Your task to perform on an android device: check data usage Image 0: 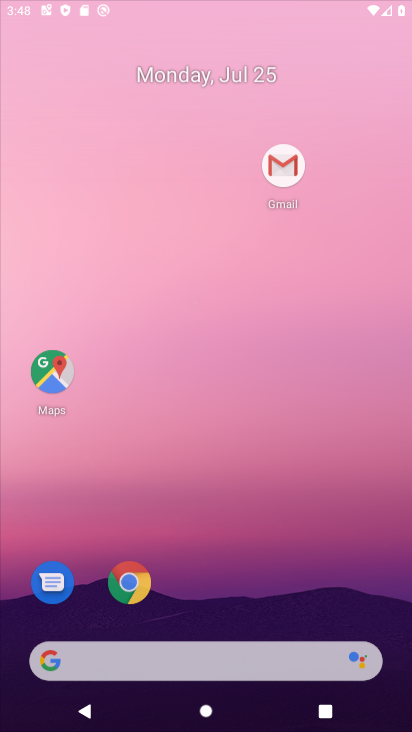
Step 0: press home button
Your task to perform on an android device: check data usage Image 1: 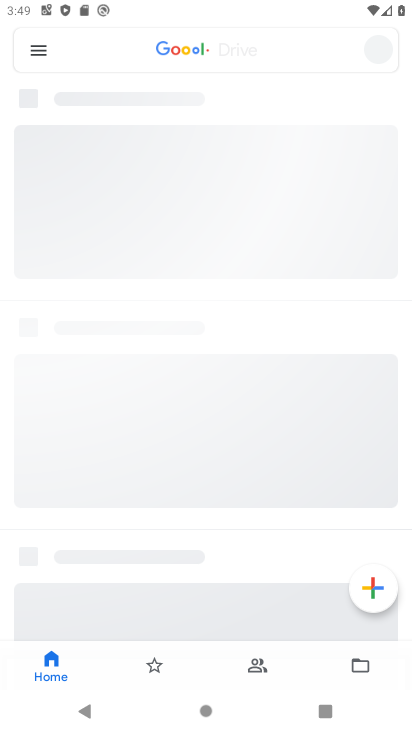
Step 1: press home button
Your task to perform on an android device: check data usage Image 2: 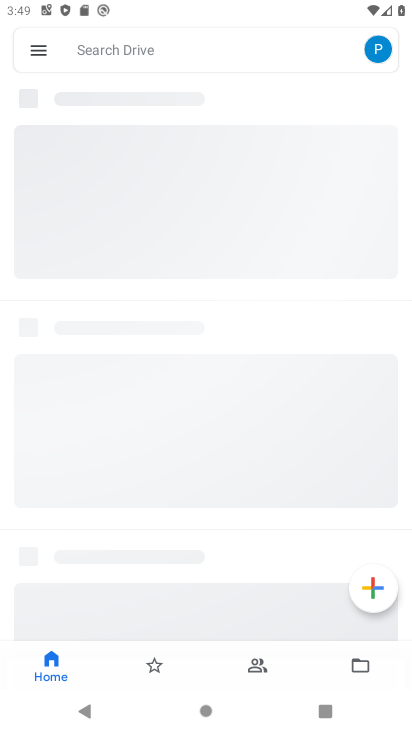
Step 2: drag from (266, 513) to (257, 346)
Your task to perform on an android device: check data usage Image 3: 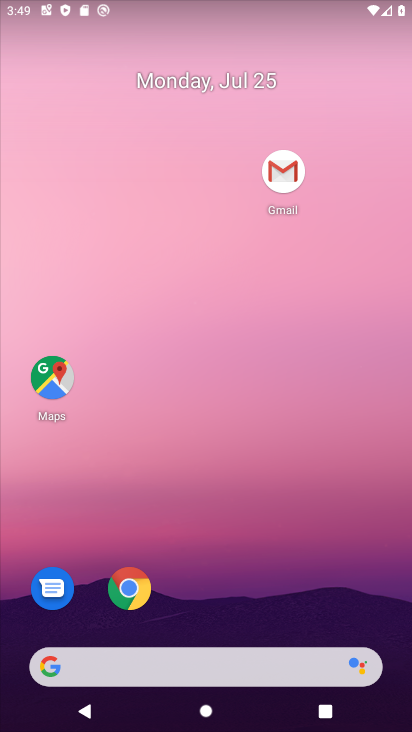
Step 3: press home button
Your task to perform on an android device: check data usage Image 4: 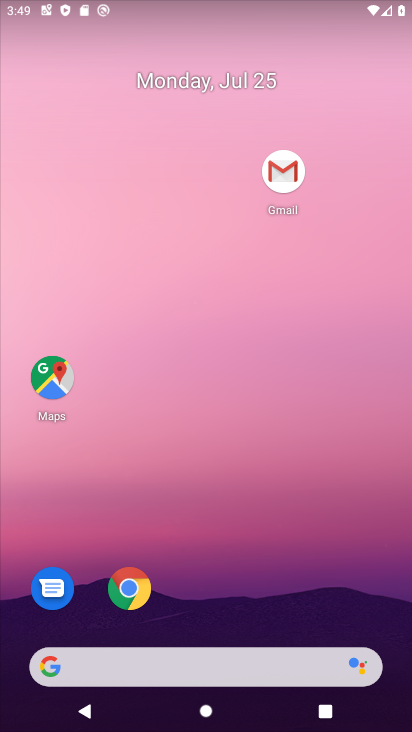
Step 4: drag from (309, 597) to (294, 83)
Your task to perform on an android device: check data usage Image 5: 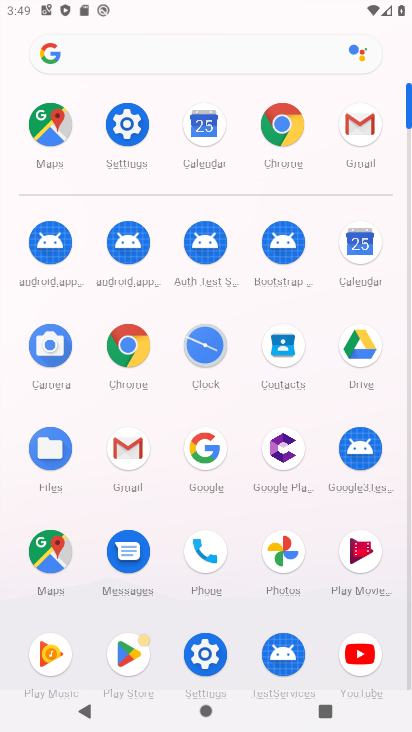
Step 5: click (120, 116)
Your task to perform on an android device: check data usage Image 6: 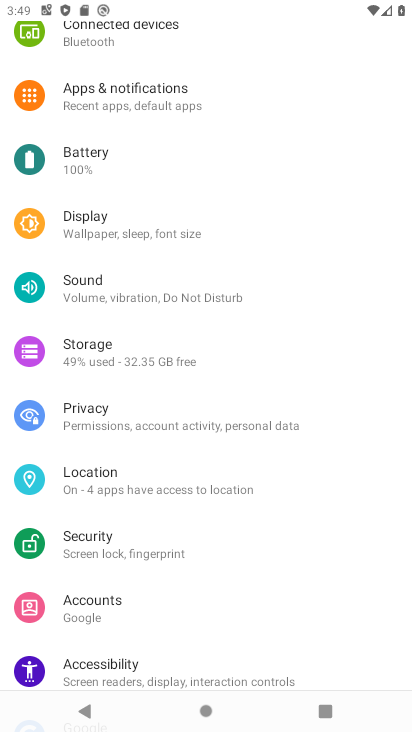
Step 6: drag from (187, 156) to (182, 555)
Your task to perform on an android device: check data usage Image 7: 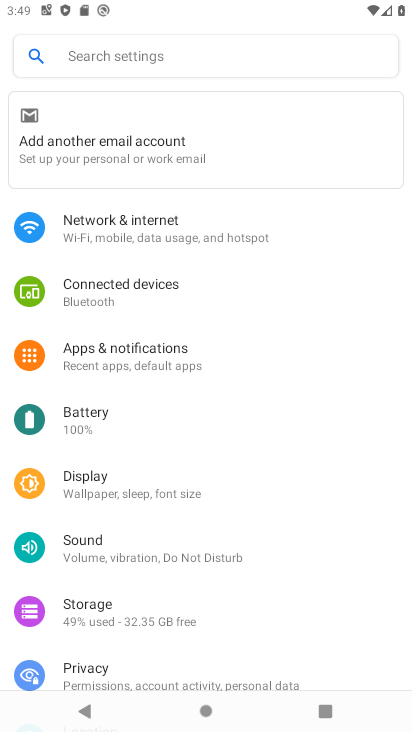
Step 7: click (135, 243)
Your task to perform on an android device: check data usage Image 8: 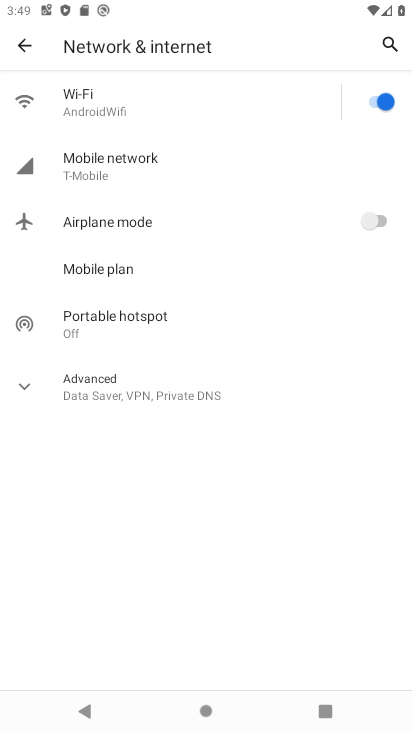
Step 8: click (195, 170)
Your task to perform on an android device: check data usage Image 9: 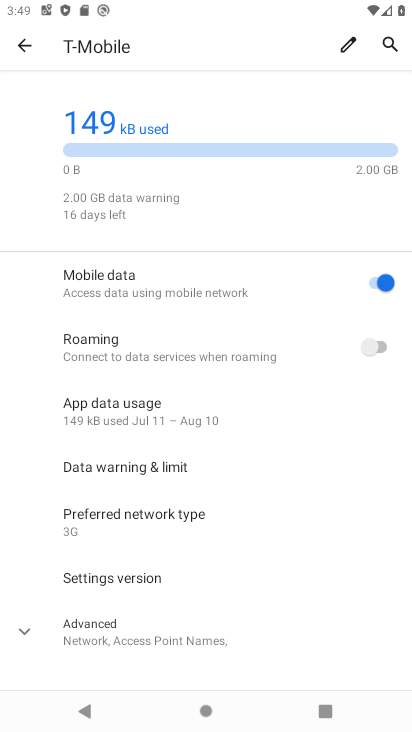
Step 9: task complete